Your task to perform on an android device: toggle notifications settings in the gmail app Image 0: 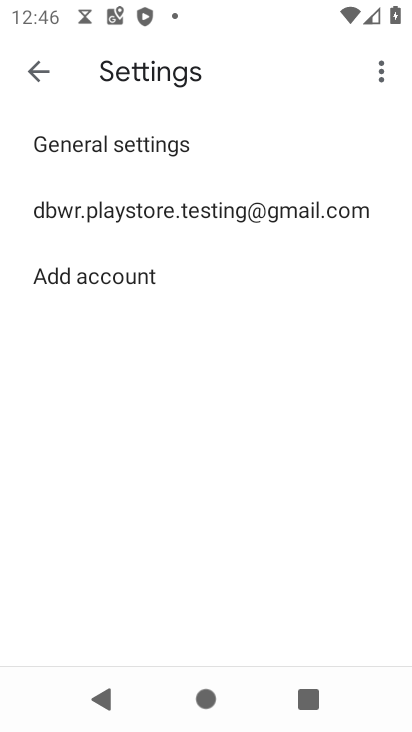
Step 0: press home button
Your task to perform on an android device: toggle notifications settings in the gmail app Image 1: 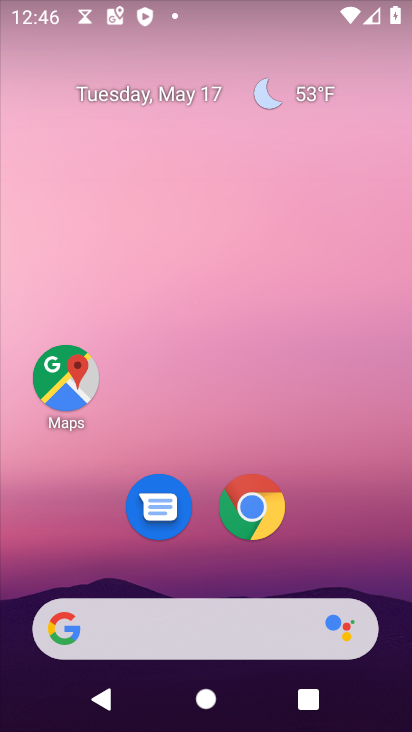
Step 1: drag from (207, 575) to (160, 1)
Your task to perform on an android device: toggle notifications settings in the gmail app Image 2: 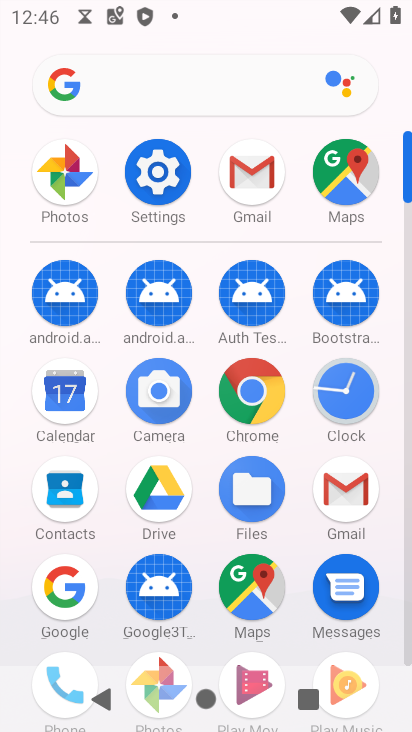
Step 2: click (335, 498)
Your task to perform on an android device: toggle notifications settings in the gmail app Image 3: 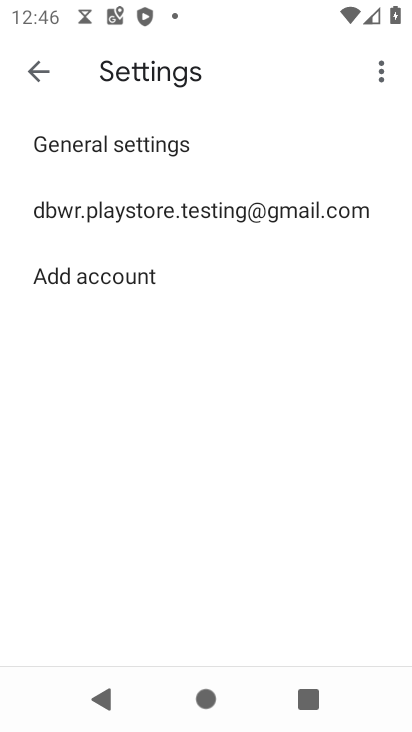
Step 3: click (133, 207)
Your task to perform on an android device: toggle notifications settings in the gmail app Image 4: 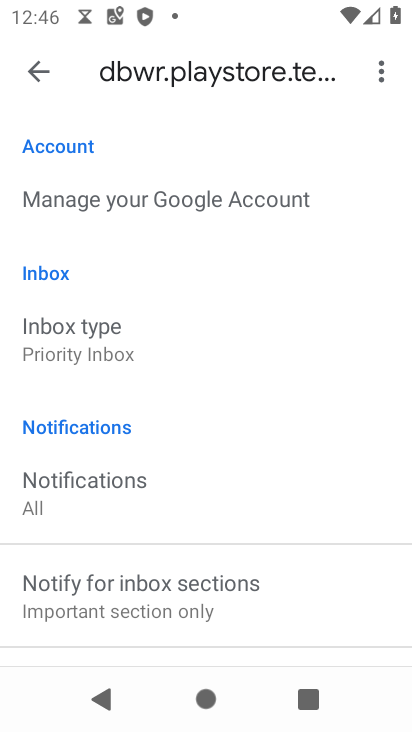
Step 4: drag from (144, 573) to (134, 353)
Your task to perform on an android device: toggle notifications settings in the gmail app Image 5: 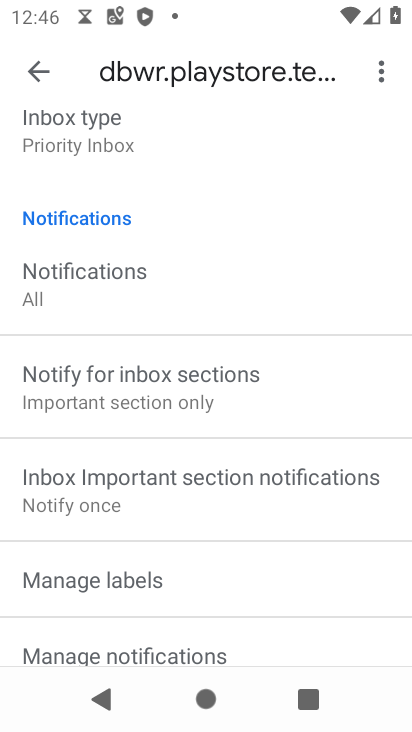
Step 5: click (147, 649)
Your task to perform on an android device: toggle notifications settings in the gmail app Image 6: 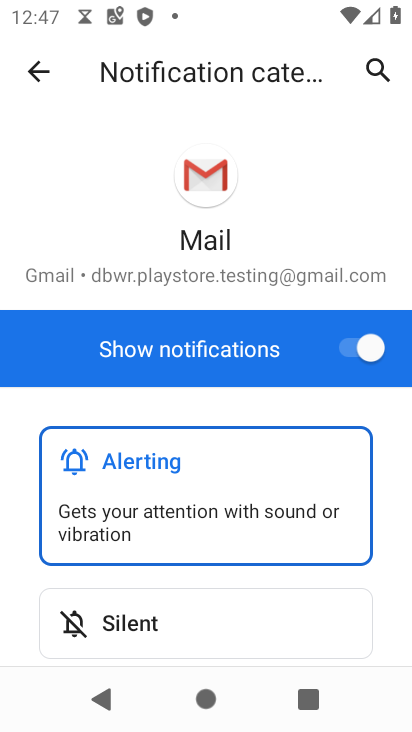
Step 6: click (346, 358)
Your task to perform on an android device: toggle notifications settings in the gmail app Image 7: 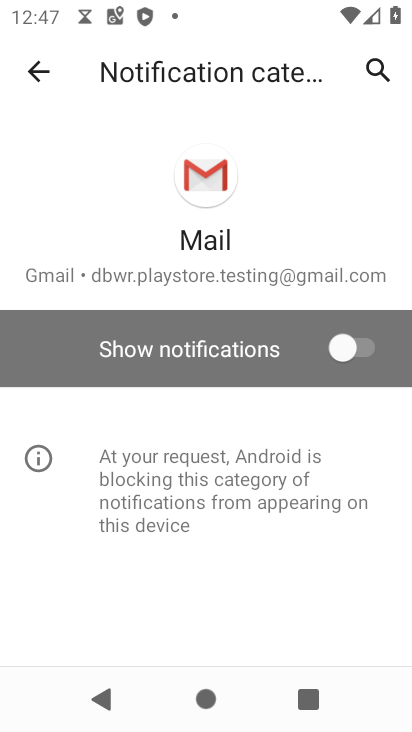
Step 7: task complete